Your task to perform on an android device: turn off priority inbox in the gmail app Image 0: 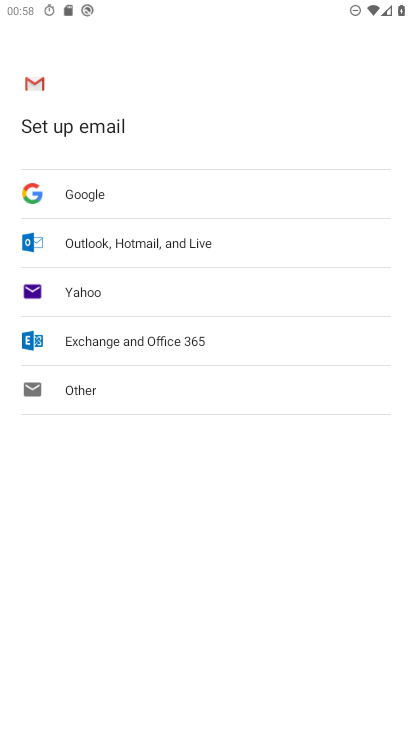
Step 0: press home button
Your task to perform on an android device: turn off priority inbox in the gmail app Image 1: 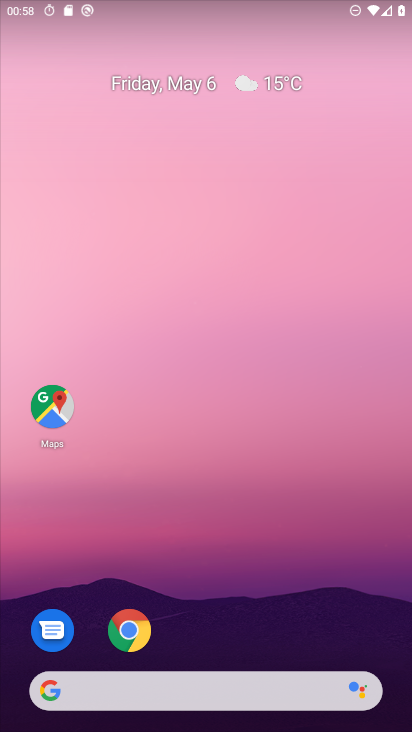
Step 1: drag from (302, 544) to (258, 0)
Your task to perform on an android device: turn off priority inbox in the gmail app Image 2: 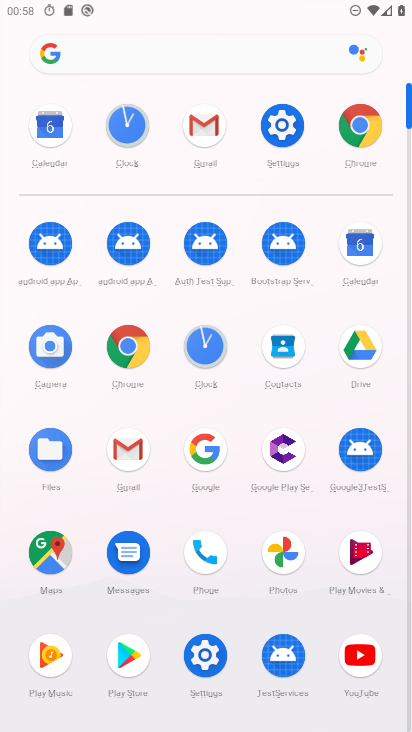
Step 2: click (140, 452)
Your task to perform on an android device: turn off priority inbox in the gmail app Image 3: 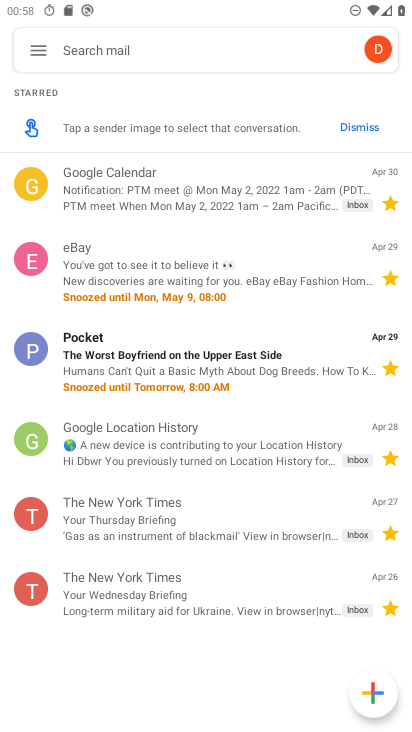
Step 3: click (41, 48)
Your task to perform on an android device: turn off priority inbox in the gmail app Image 4: 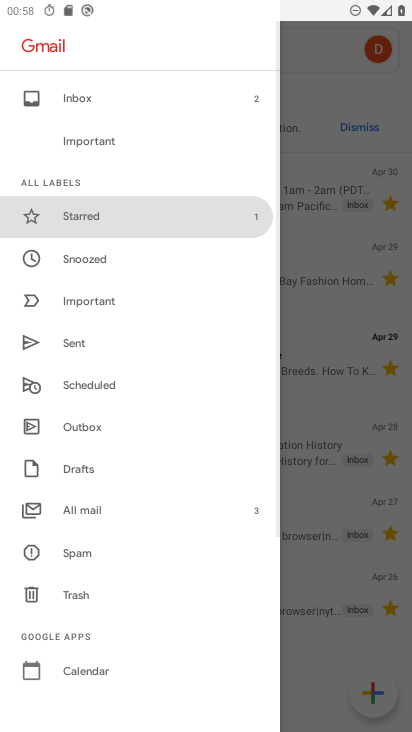
Step 4: drag from (111, 638) to (174, 40)
Your task to perform on an android device: turn off priority inbox in the gmail app Image 5: 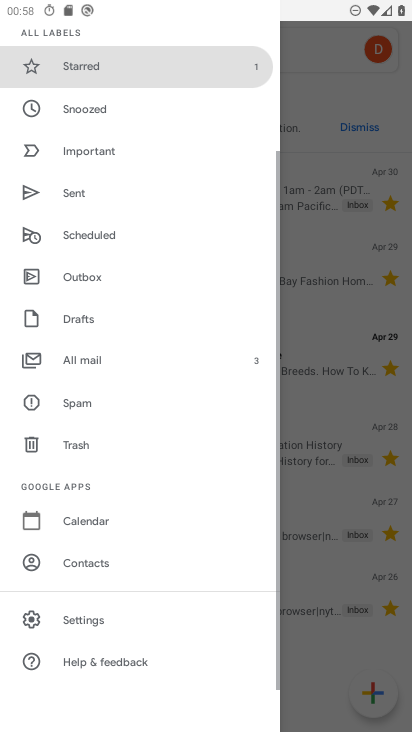
Step 5: click (97, 619)
Your task to perform on an android device: turn off priority inbox in the gmail app Image 6: 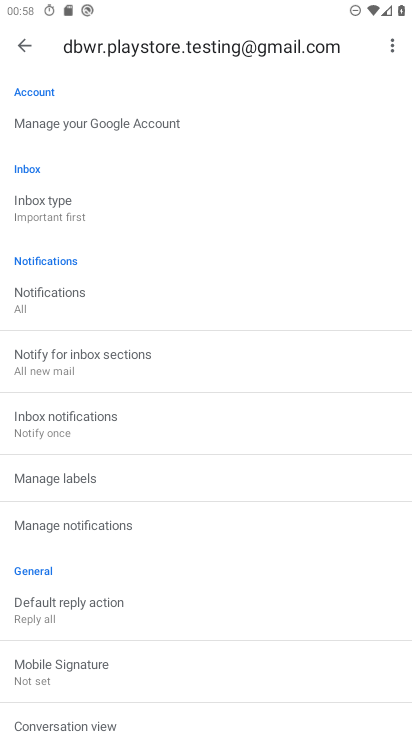
Step 6: click (94, 524)
Your task to perform on an android device: turn off priority inbox in the gmail app Image 7: 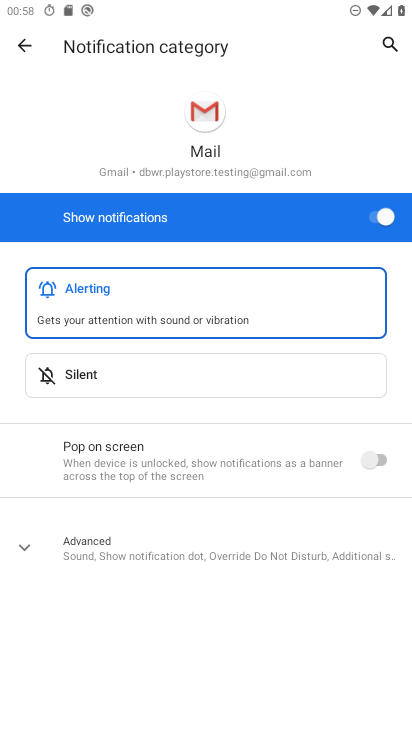
Step 7: click (17, 45)
Your task to perform on an android device: turn off priority inbox in the gmail app Image 8: 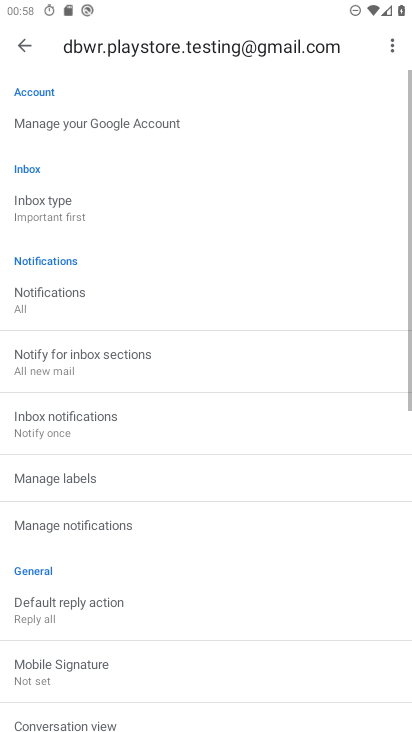
Step 8: click (67, 213)
Your task to perform on an android device: turn off priority inbox in the gmail app Image 9: 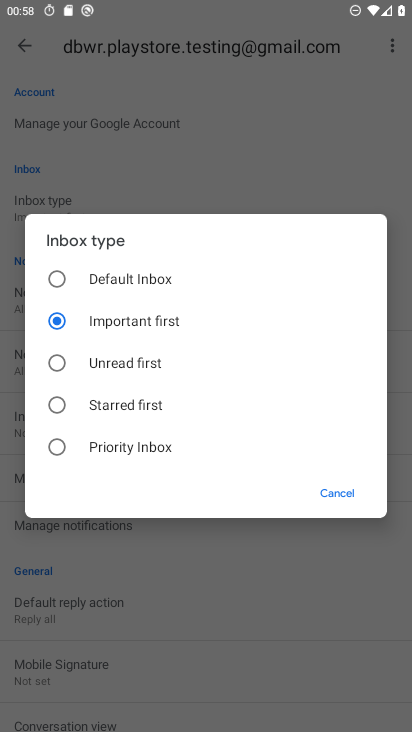
Step 9: task complete